Your task to perform on an android device: Add "macbook pro 15 inch" to the cart on newegg.com Image 0: 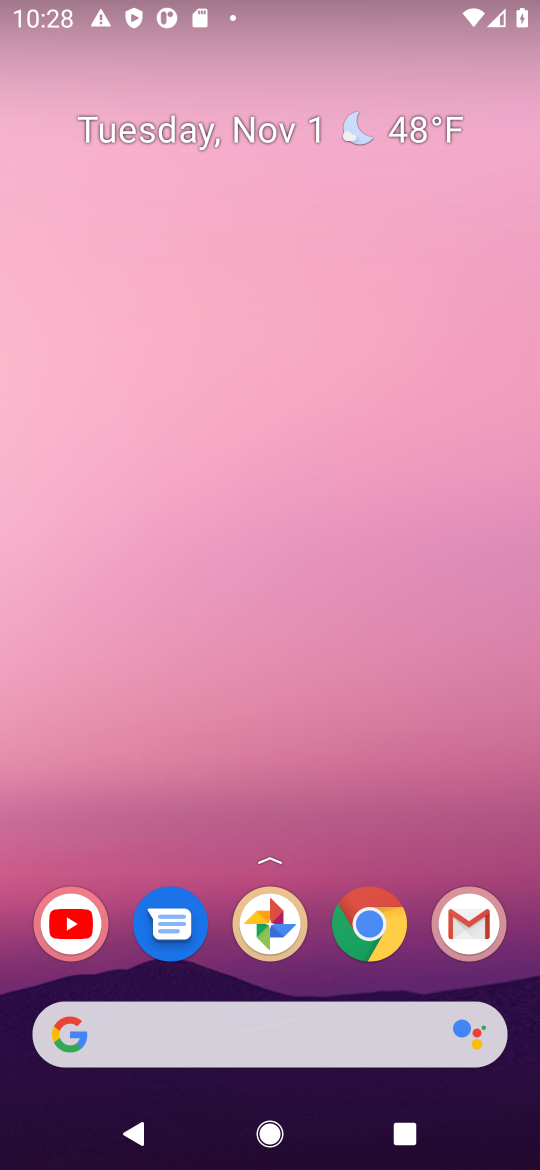
Step 0: click (380, 918)
Your task to perform on an android device: Add "macbook pro 15 inch" to the cart on newegg.com Image 1: 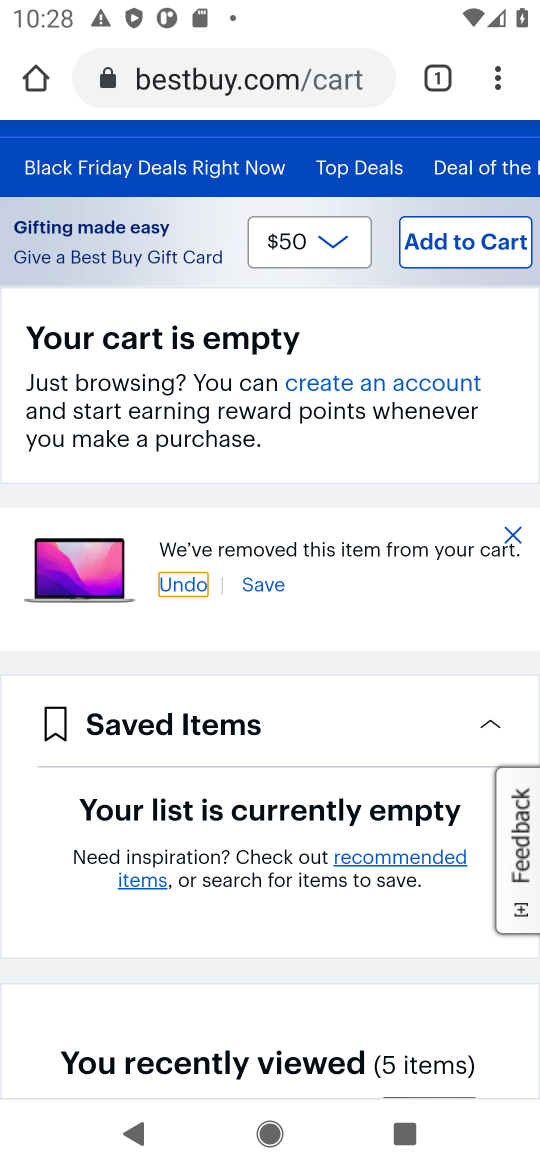
Step 1: click (242, 73)
Your task to perform on an android device: Add "macbook pro 15 inch" to the cart on newegg.com Image 2: 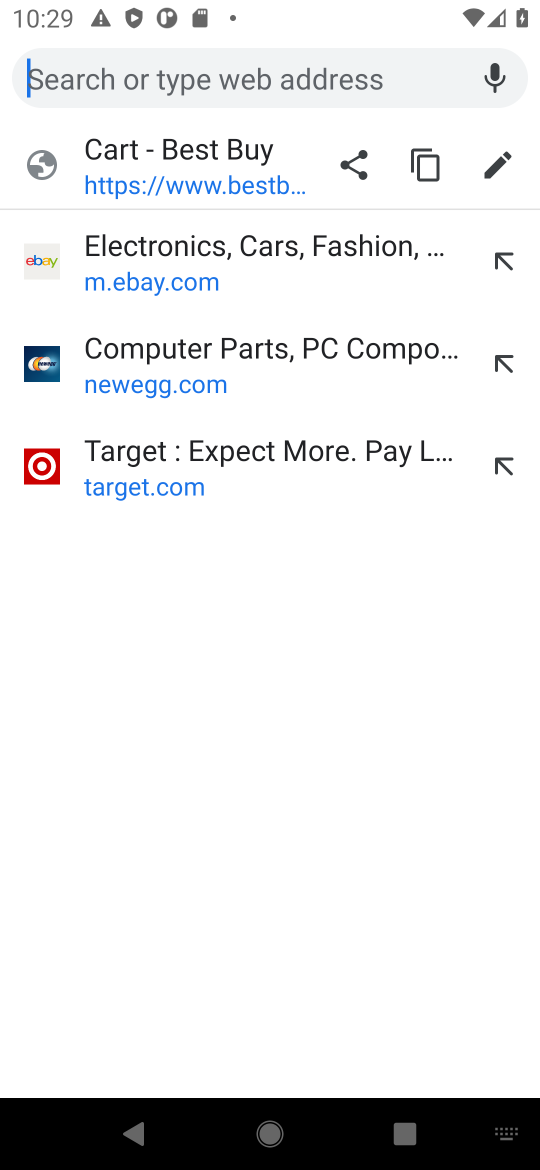
Step 2: type "newegg.com"
Your task to perform on an android device: Add "macbook pro 15 inch" to the cart on newegg.com Image 3: 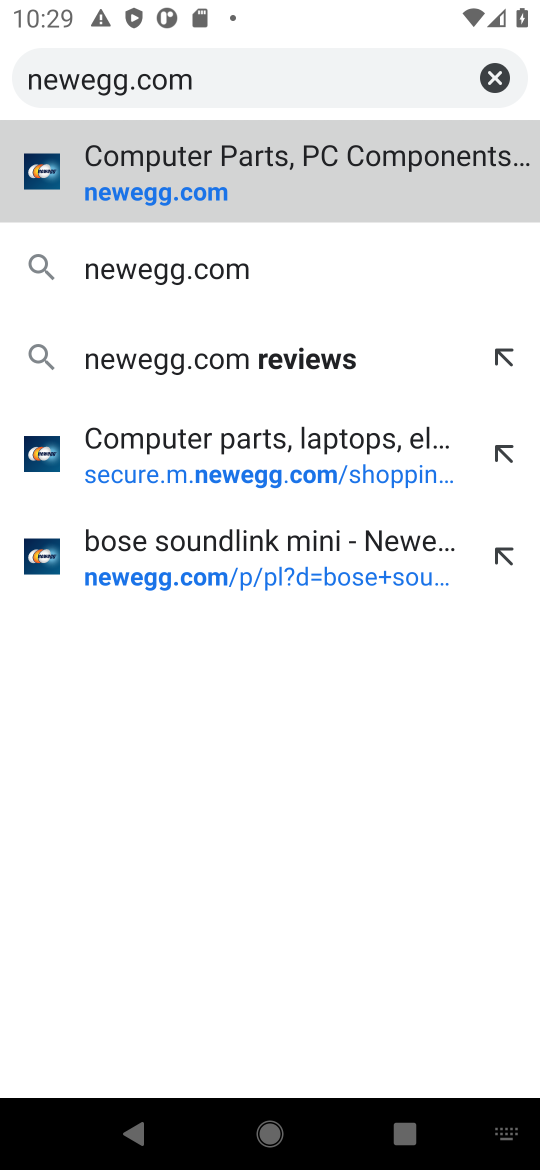
Step 3: click (255, 200)
Your task to perform on an android device: Add "macbook pro 15 inch" to the cart on newegg.com Image 4: 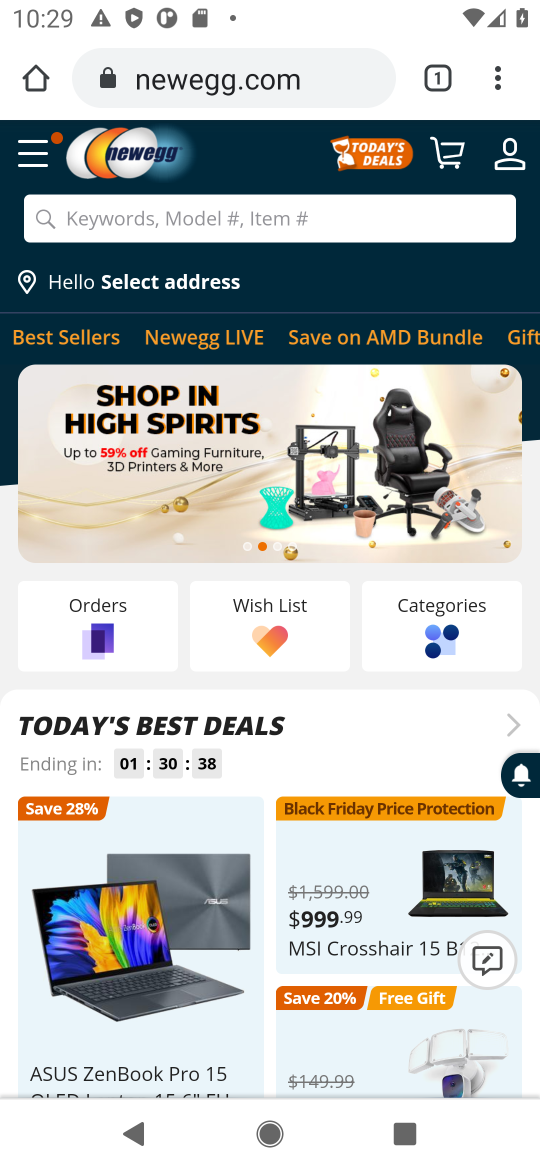
Step 4: click (233, 222)
Your task to perform on an android device: Add "macbook pro 15 inch" to the cart on newegg.com Image 5: 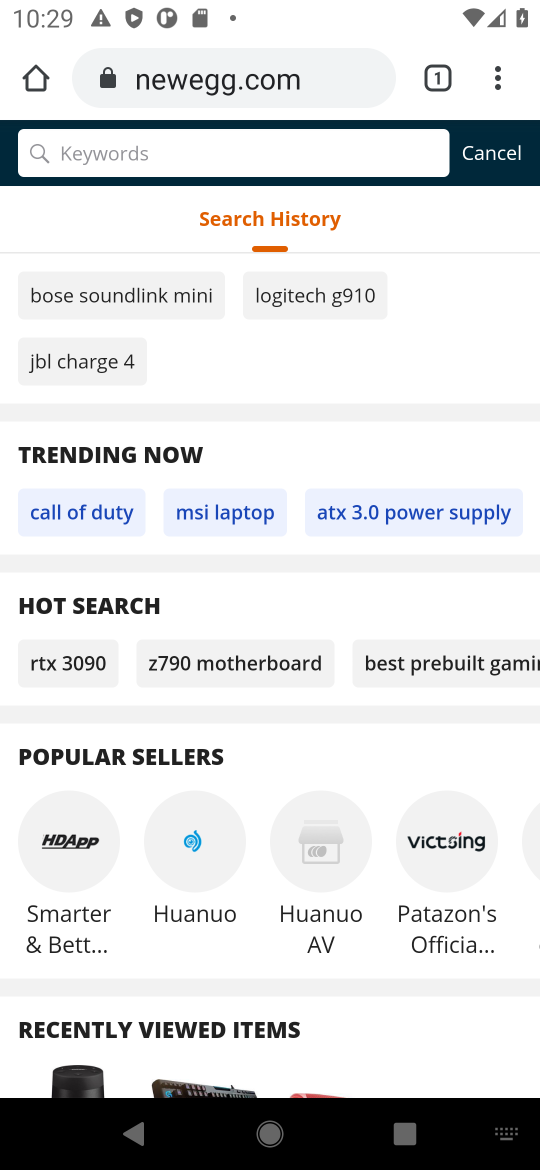
Step 5: type "macbook pro 15 inch"
Your task to perform on an android device: Add "macbook pro 15 inch" to the cart on newegg.com Image 6: 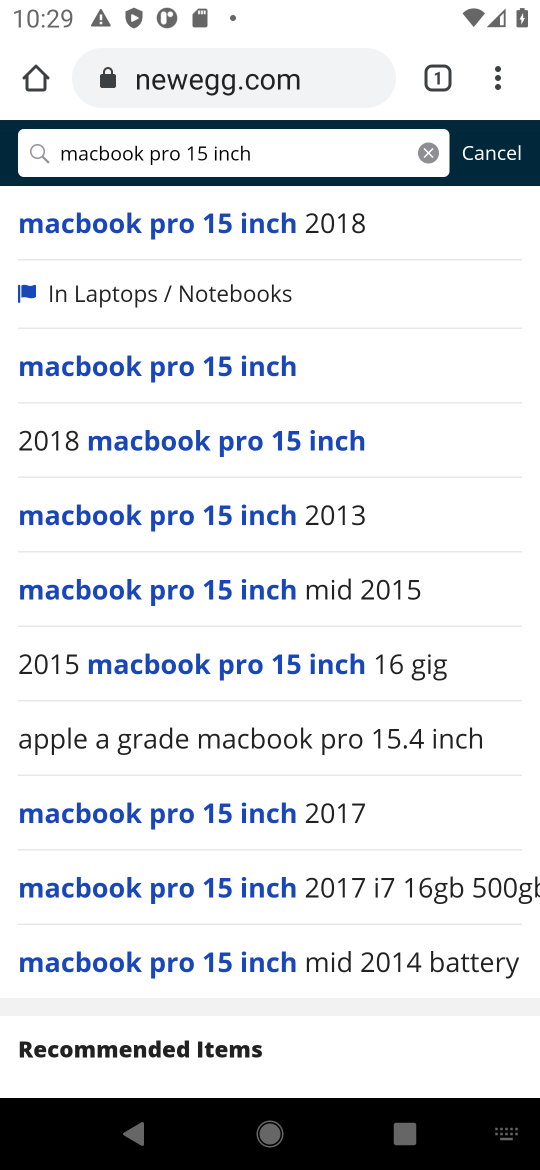
Step 6: press enter
Your task to perform on an android device: Add "macbook pro 15 inch" to the cart on newegg.com Image 7: 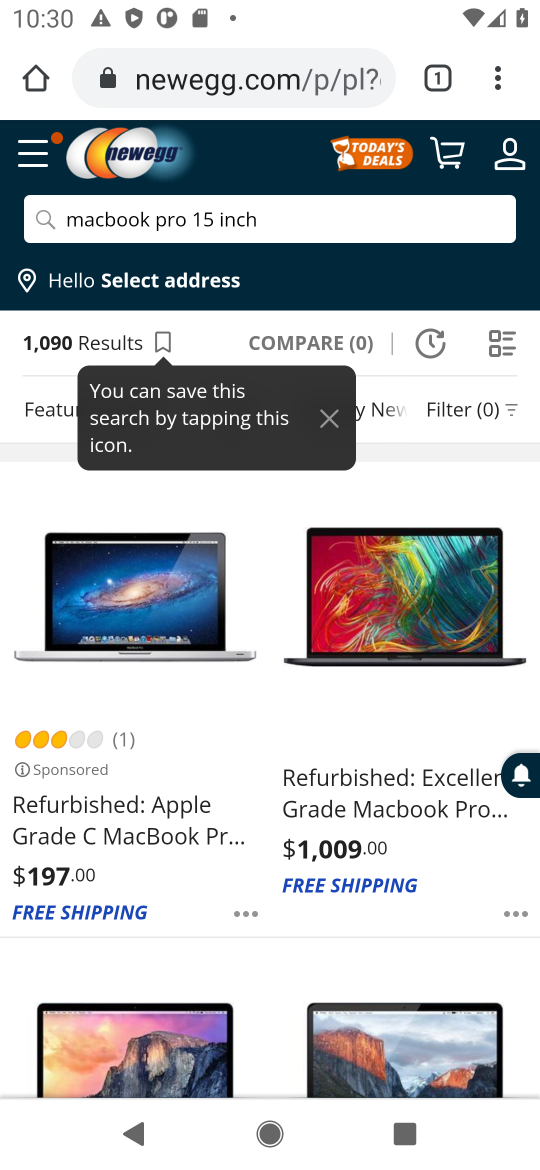
Step 7: drag from (290, 644) to (299, 432)
Your task to perform on an android device: Add "macbook pro 15 inch" to the cart on newegg.com Image 8: 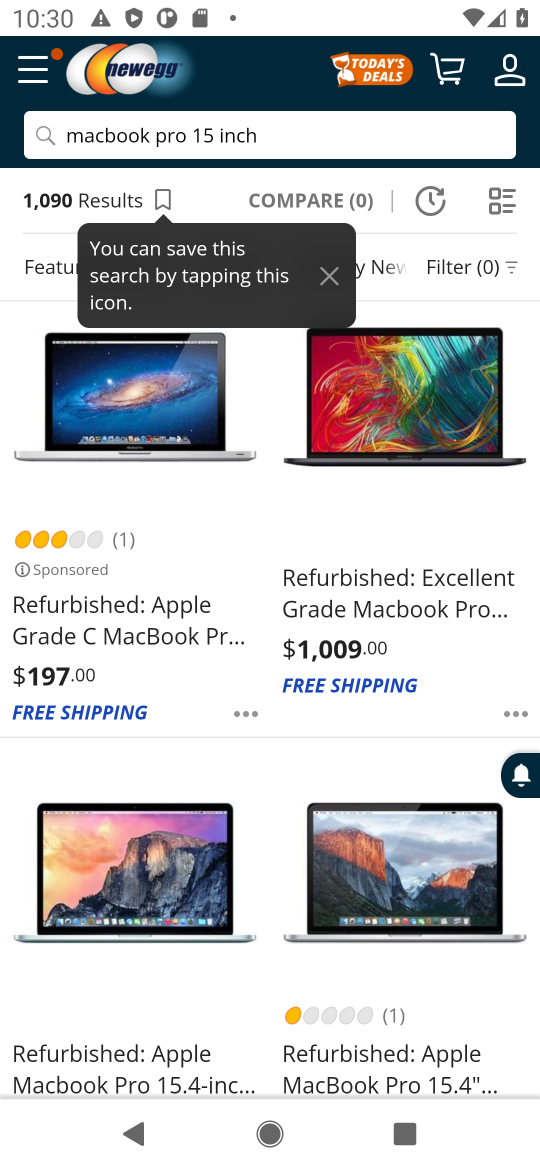
Step 8: click (108, 1066)
Your task to perform on an android device: Add "macbook pro 15 inch" to the cart on newegg.com Image 9: 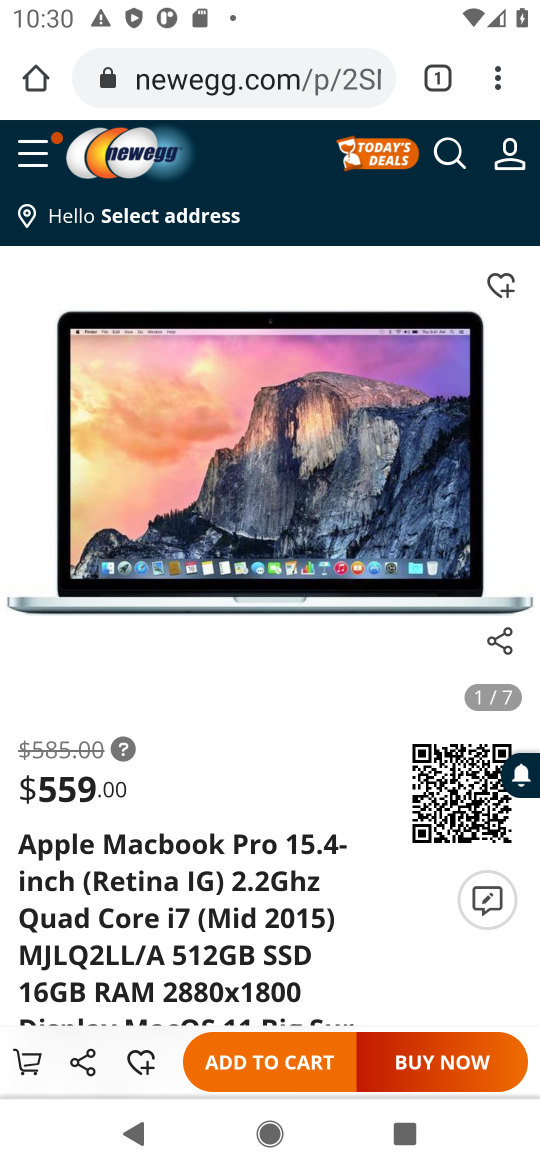
Step 9: click (293, 1059)
Your task to perform on an android device: Add "macbook pro 15 inch" to the cart on newegg.com Image 10: 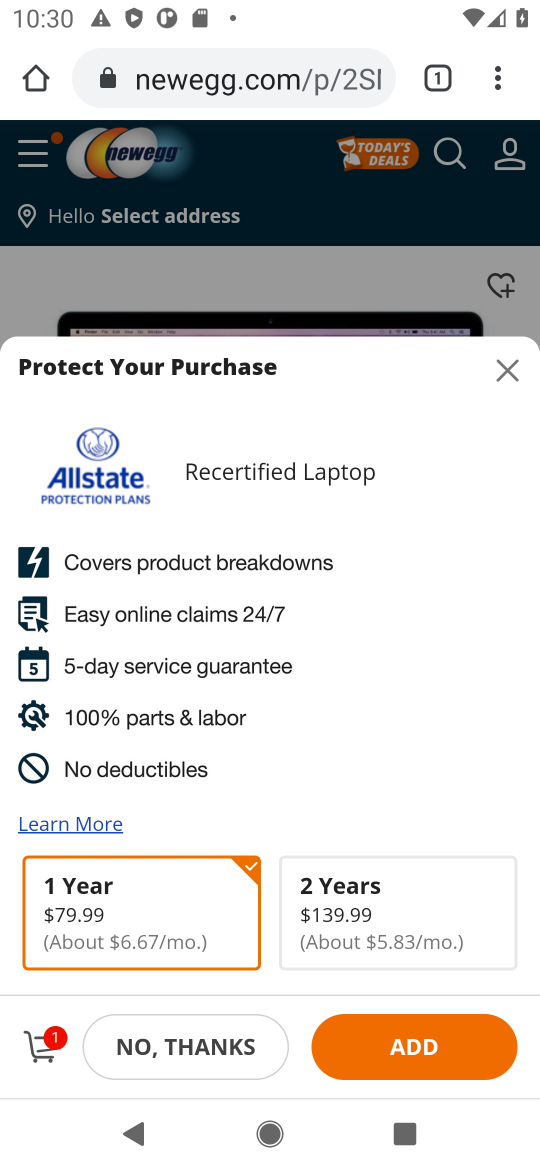
Step 10: task complete